Your task to perform on an android device: Toggle the flashlight Image 0: 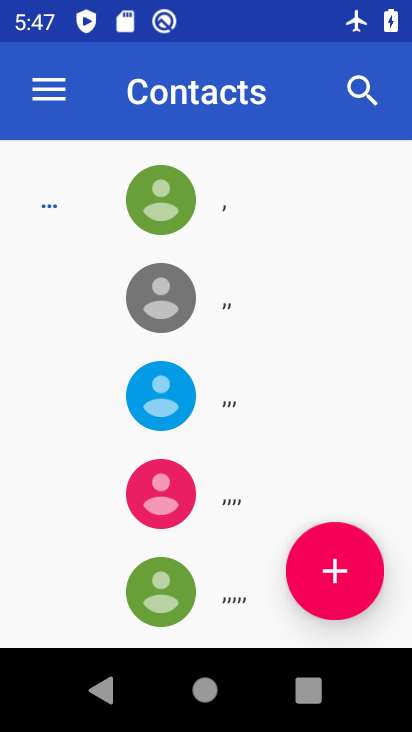
Step 0: press home button
Your task to perform on an android device: Toggle the flashlight Image 1: 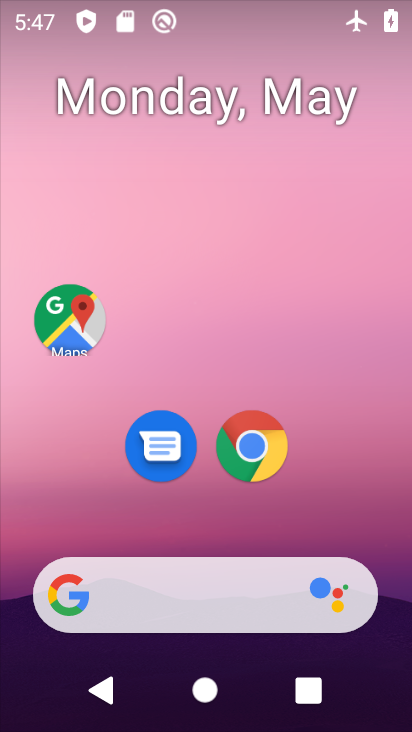
Step 1: drag from (358, 499) to (256, 113)
Your task to perform on an android device: Toggle the flashlight Image 2: 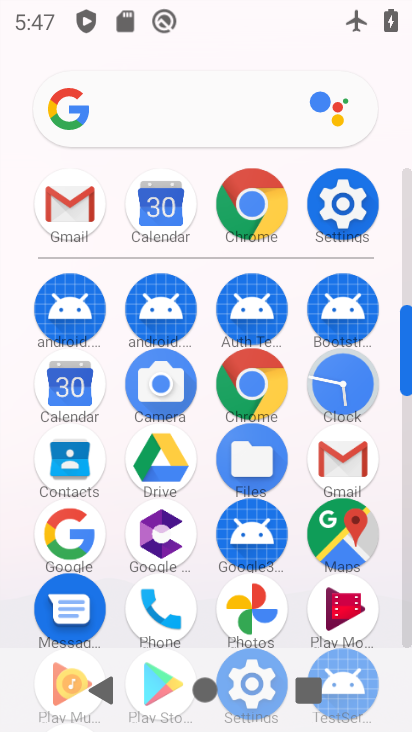
Step 2: click (338, 209)
Your task to perform on an android device: Toggle the flashlight Image 3: 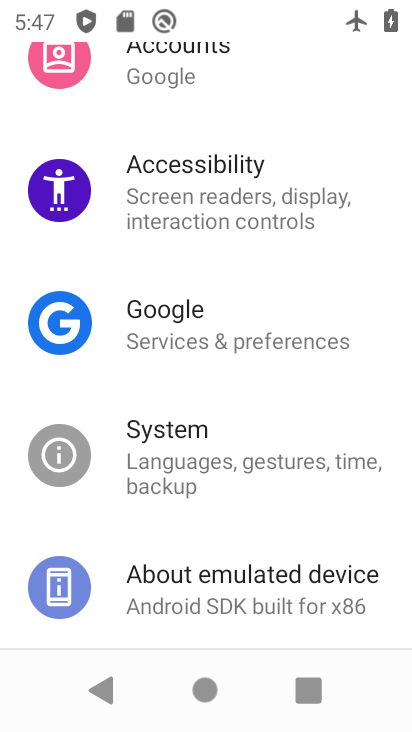
Step 3: drag from (219, 273) to (245, 728)
Your task to perform on an android device: Toggle the flashlight Image 4: 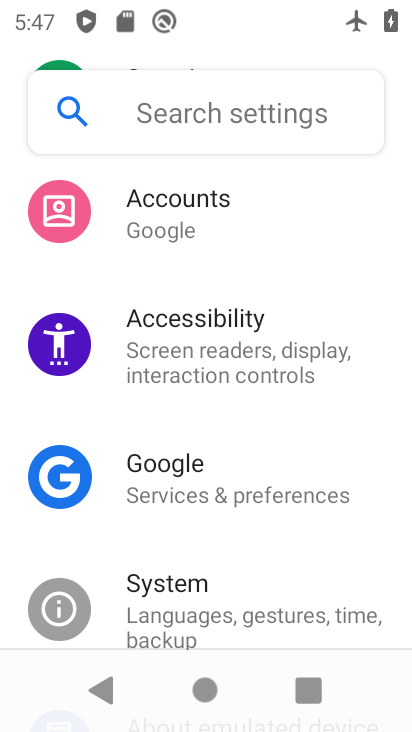
Step 4: drag from (236, 280) to (132, 730)
Your task to perform on an android device: Toggle the flashlight Image 5: 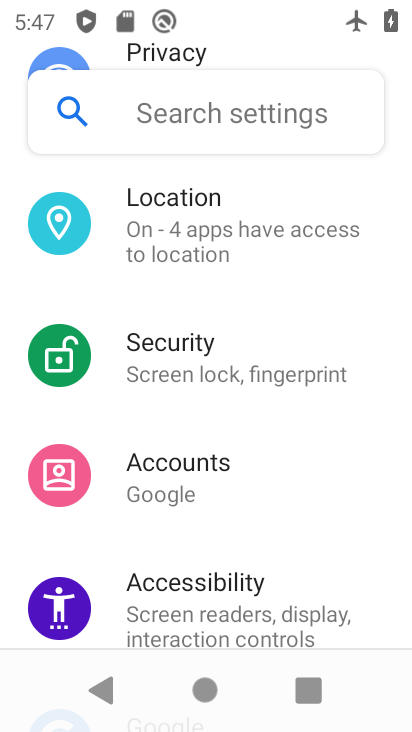
Step 5: drag from (205, 298) to (111, 709)
Your task to perform on an android device: Toggle the flashlight Image 6: 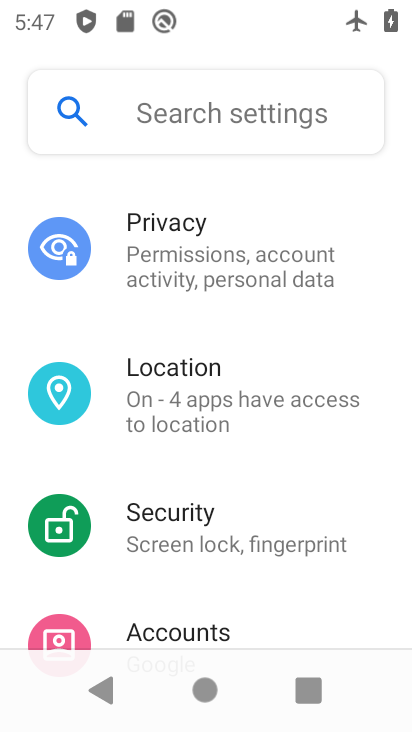
Step 6: drag from (217, 329) to (184, 729)
Your task to perform on an android device: Toggle the flashlight Image 7: 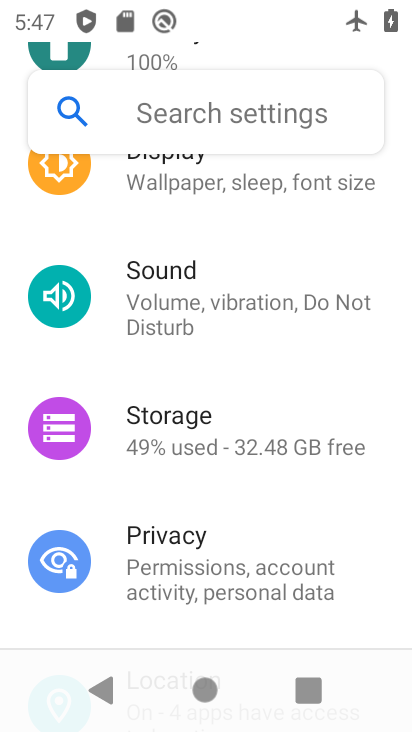
Step 7: drag from (208, 353) to (167, 722)
Your task to perform on an android device: Toggle the flashlight Image 8: 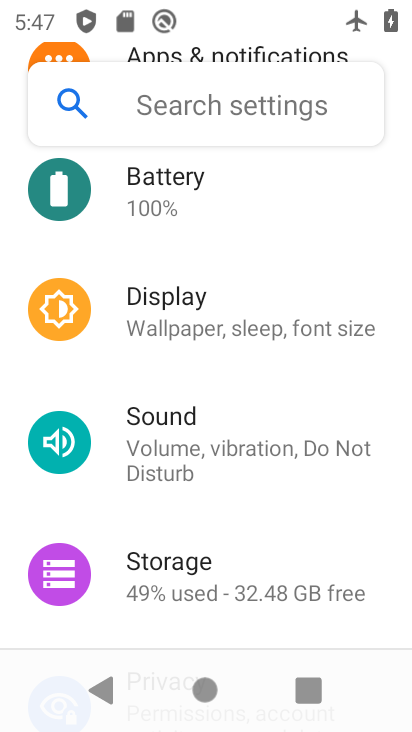
Step 8: drag from (254, 250) to (219, 630)
Your task to perform on an android device: Toggle the flashlight Image 9: 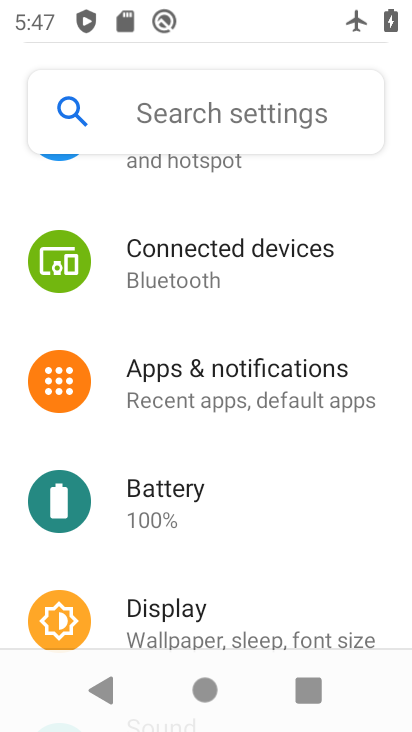
Step 9: click (225, 373)
Your task to perform on an android device: Toggle the flashlight Image 10: 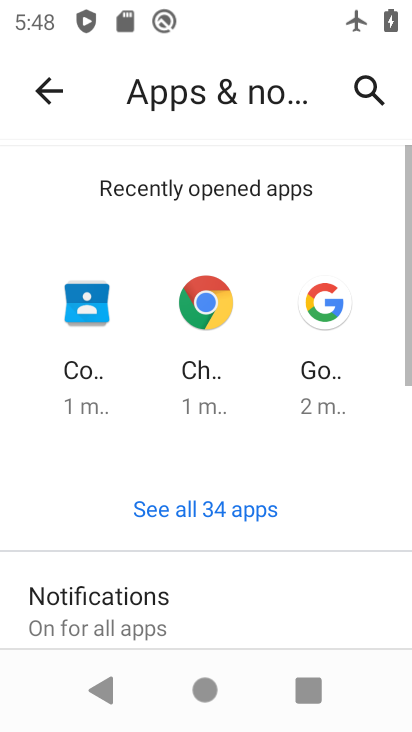
Step 10: click (42, 98)
Your task to perform on an android device: Toggle the flashlight Image 11: 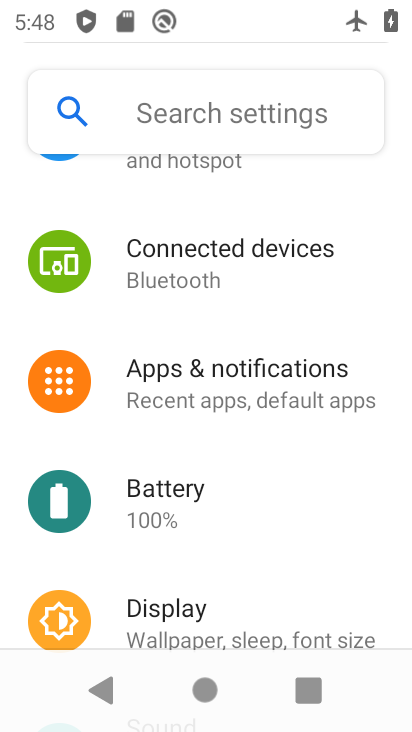
Step 11: click (170, 607)
Your task to perform on an android device: Toggle the flashlight Image 12: 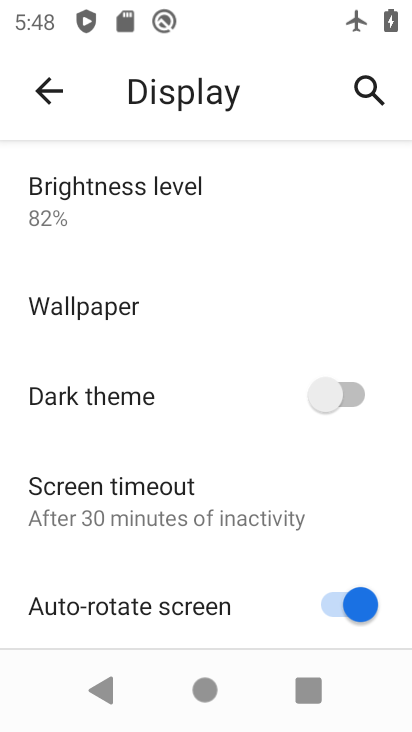
Step 12: task complete